Your task to perform on an android device: turn vacation reply on in the gmail app Image 0: 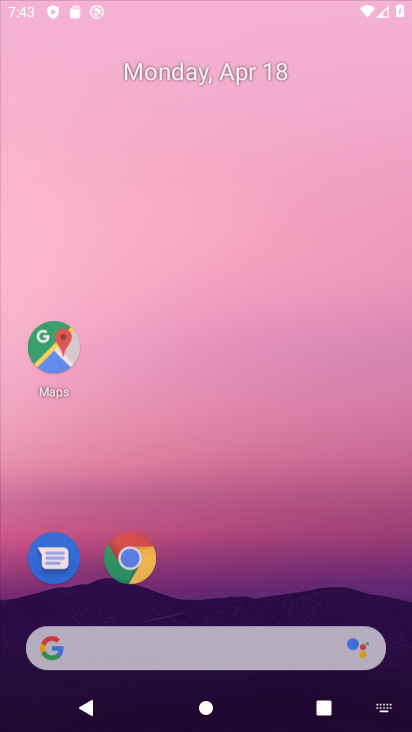
Step 0: drag from (291, 617) to (264, 312)
Your task to perform on an android device: turn vacation reply on in the gmail app Image 1: 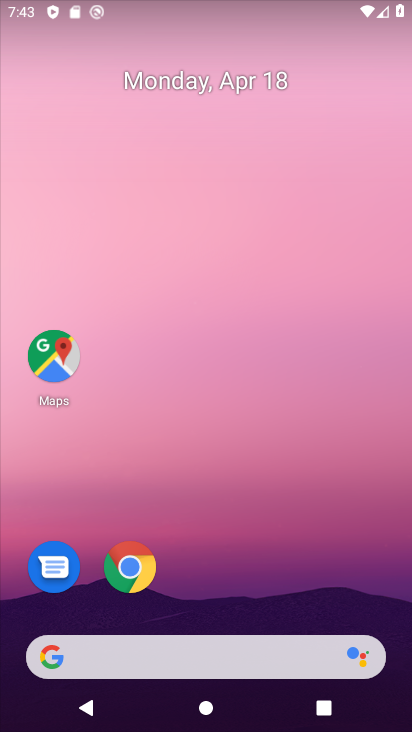
Step 1: drag from (287, 614) to (197, 164)
Your task to perform on an android device: turn vacation reply on in the gmail app Image 2: 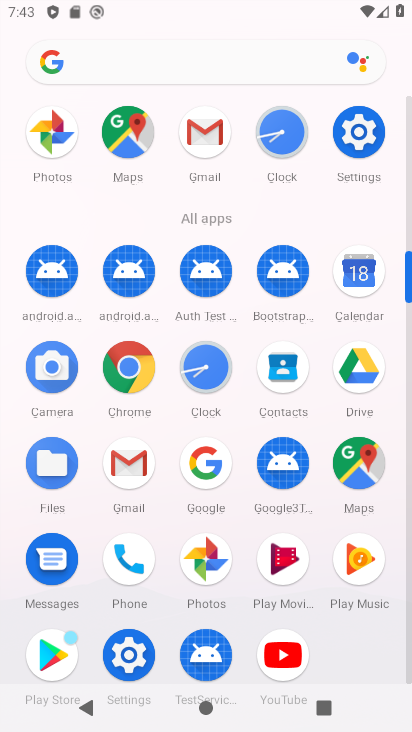
Step 2: click (118, 463)
Your task to perform on an android device: turn vacation reply on in the gmail app Image 3: 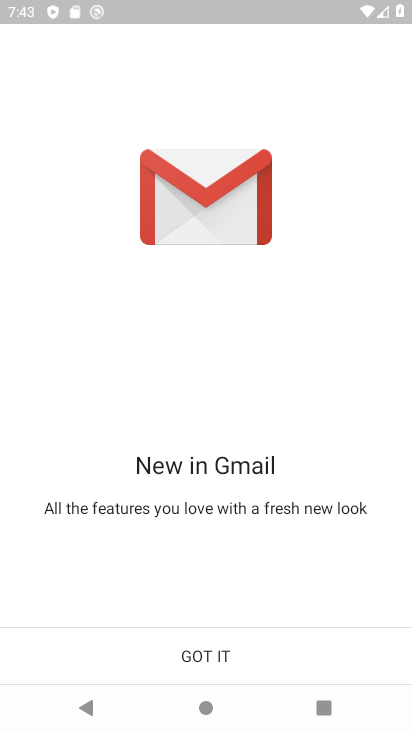
Step 3: click (194, 655)
Your task to perform on an android device: turn vacation reply on in the gmail app Image 4: 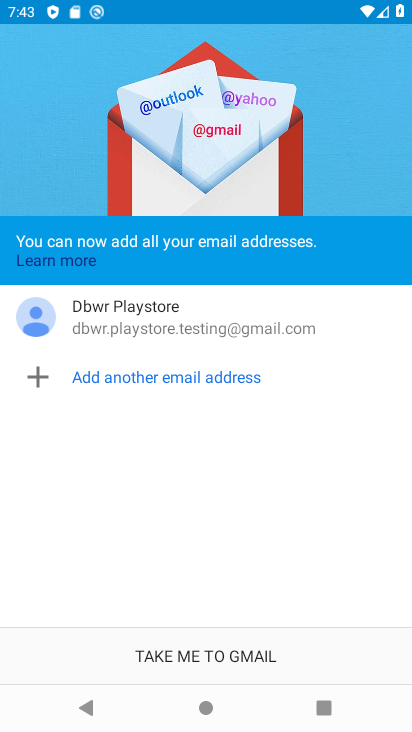
Step 4: click (194, 655)
Your task to perform on an android device: turn vacation reply on in the gmail app Image 5: 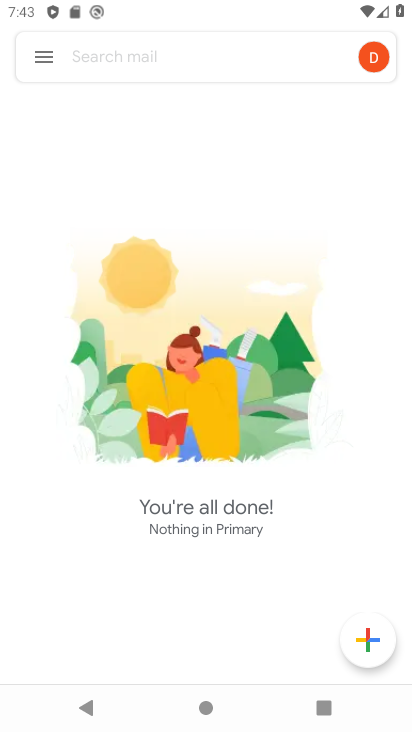
Step 5: click (43, 52)
Your task to perform on an android device: turn vacation reply on in the gmail app Image 6: 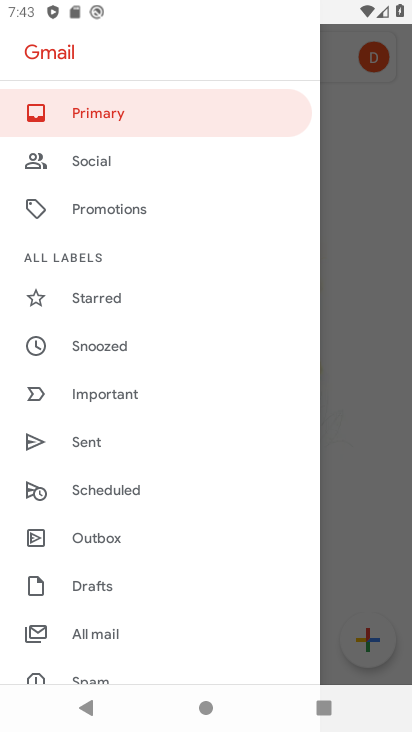
Step 6: drag from (158, 599) to (110, 229)
Your task to perform on an android device: turn vacation reply on in the gmail app Image 7: 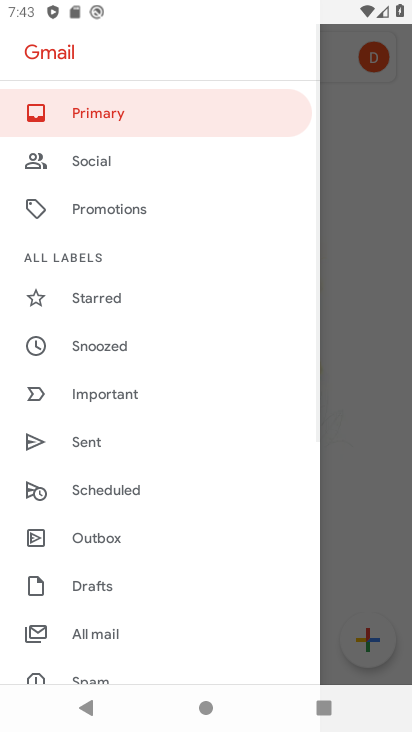
Step 7: drag from (141, 484) to (106, 167)
Your task to perform on an android device: turn vacation reply on in the gmail app Image 8: 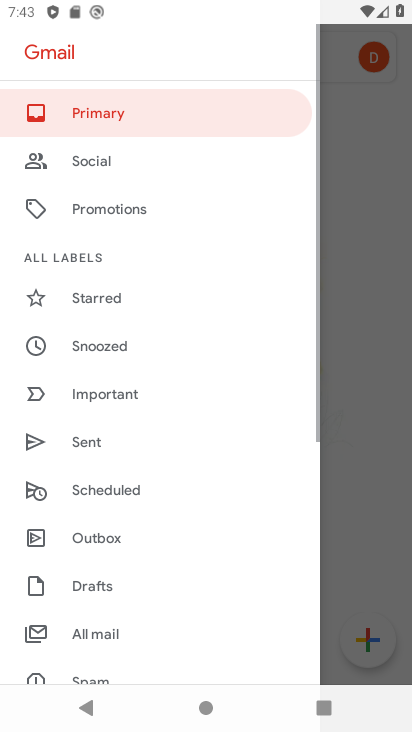
Step 8: drag from (170, 452) to (170, 137)
Your task to perform on an android device: turn vacation reply on in the gmail app Image 9: 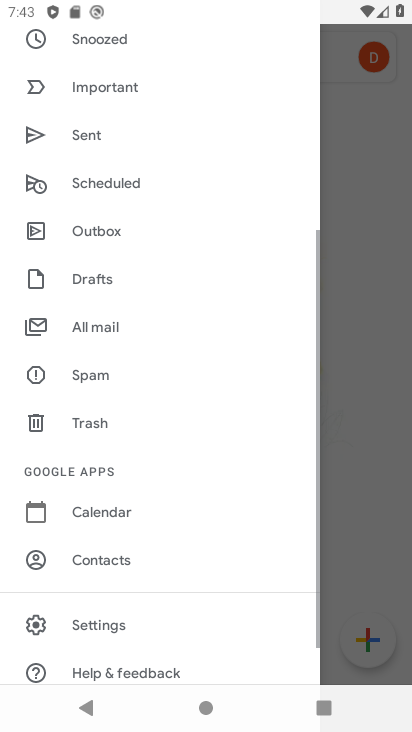
Step 9: drag from (261, 525) to (261, 28)
Your task to perform on an android device: turn vacation reply on in the gmail app Image 10: 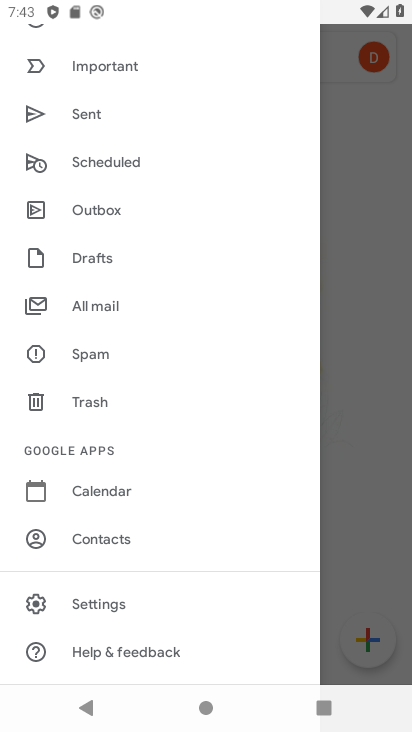
Step 10: click (98, 605)
Your task to perform on an android device: turn vacation reply on in the gmail app Image 11: 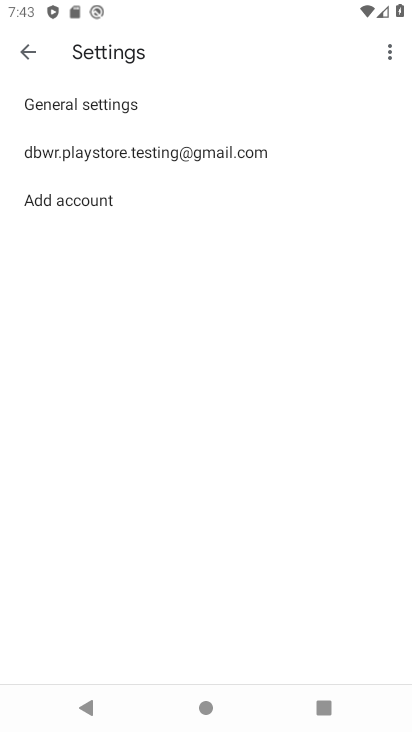
Step 11: click (97, 146)
Your task to perform on an android device: turn vacation reply on in the gmail app Image 12: 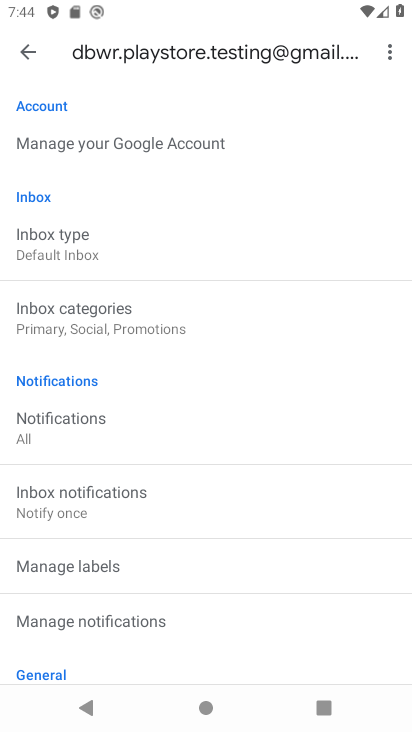
Step 12: click (88, 125)
Your task to perform on an android device: turn vacation reply on in the gmail app Image 13: 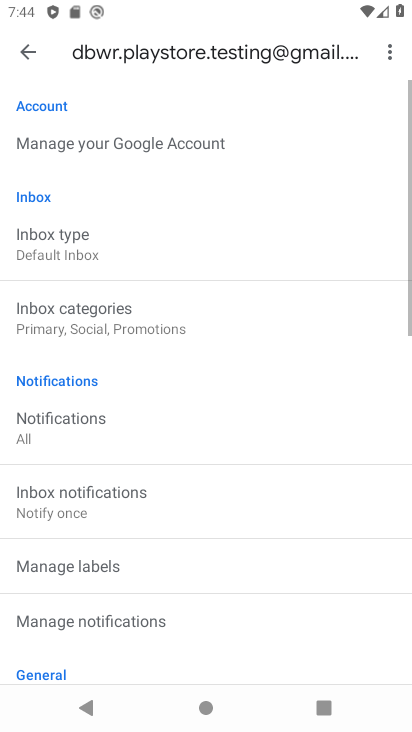
Step 13: drag from (150, 556) to (134, 153)
Your task to perform on an android device: turn vacation reply on in the gmail app Image 14: 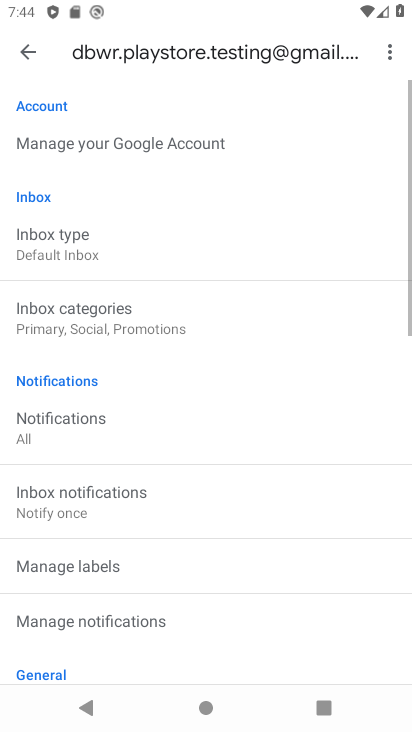
Step 14: drag from (177, 528) to (155, 465)
Your task to perform on an android device: turn vacation reply on in the gmail app Image 15: 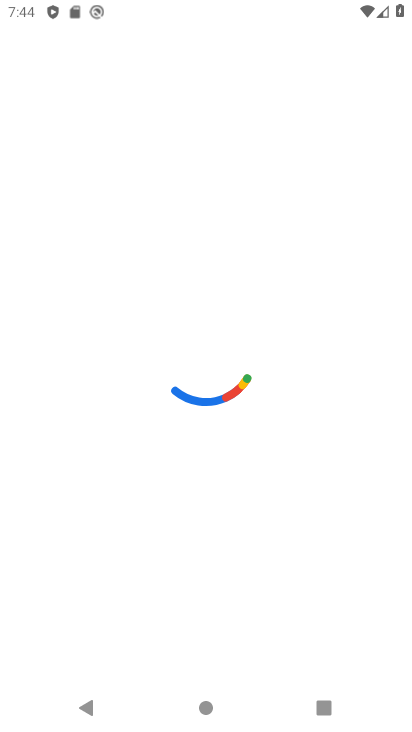
Step 15: press back button
Your task to perform on an android device: turn vacation reply on in the gmail app Image 16: 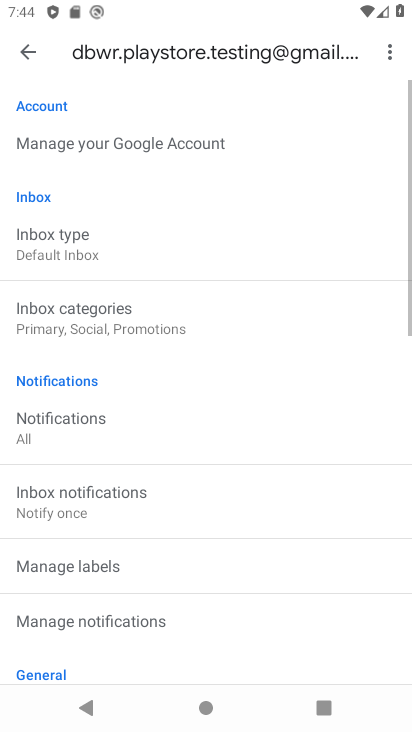
Step 16: drag from (140, 463) to (69, 49)
Your task to perform on an android device: turn vacation reply on in the gmail app Image 17: 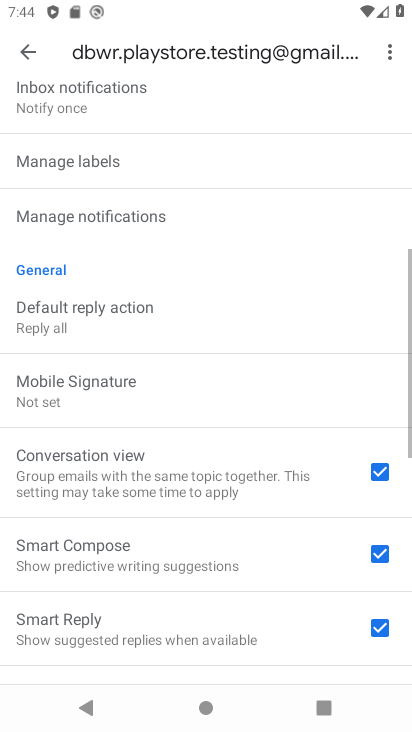
Step 17: drag from (207, 546) to (193, 107)
Your task to perform on an android device: turn vacation reply on in the gmail app Image 18: 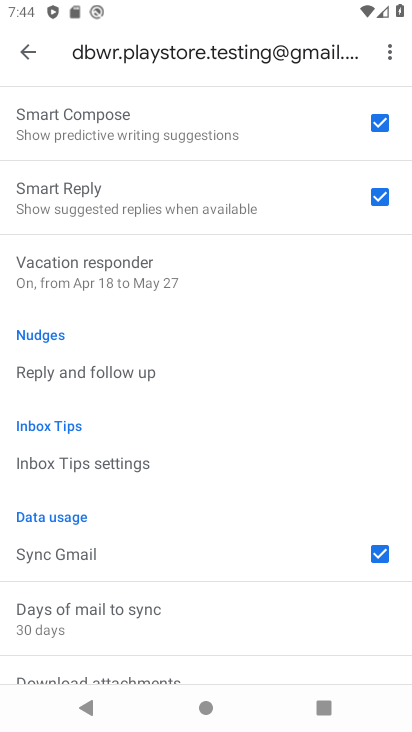
Step 18: click (114, 257)
Your task to perform on an android device: turn vacation reply on in the gmail app Image 19: 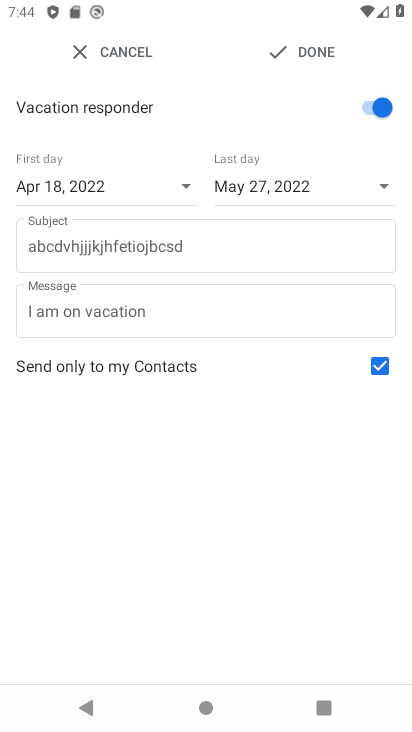
Step 19: task complete